Your task to perform on an android device: uninstall "Google Find My Device" Image 0: 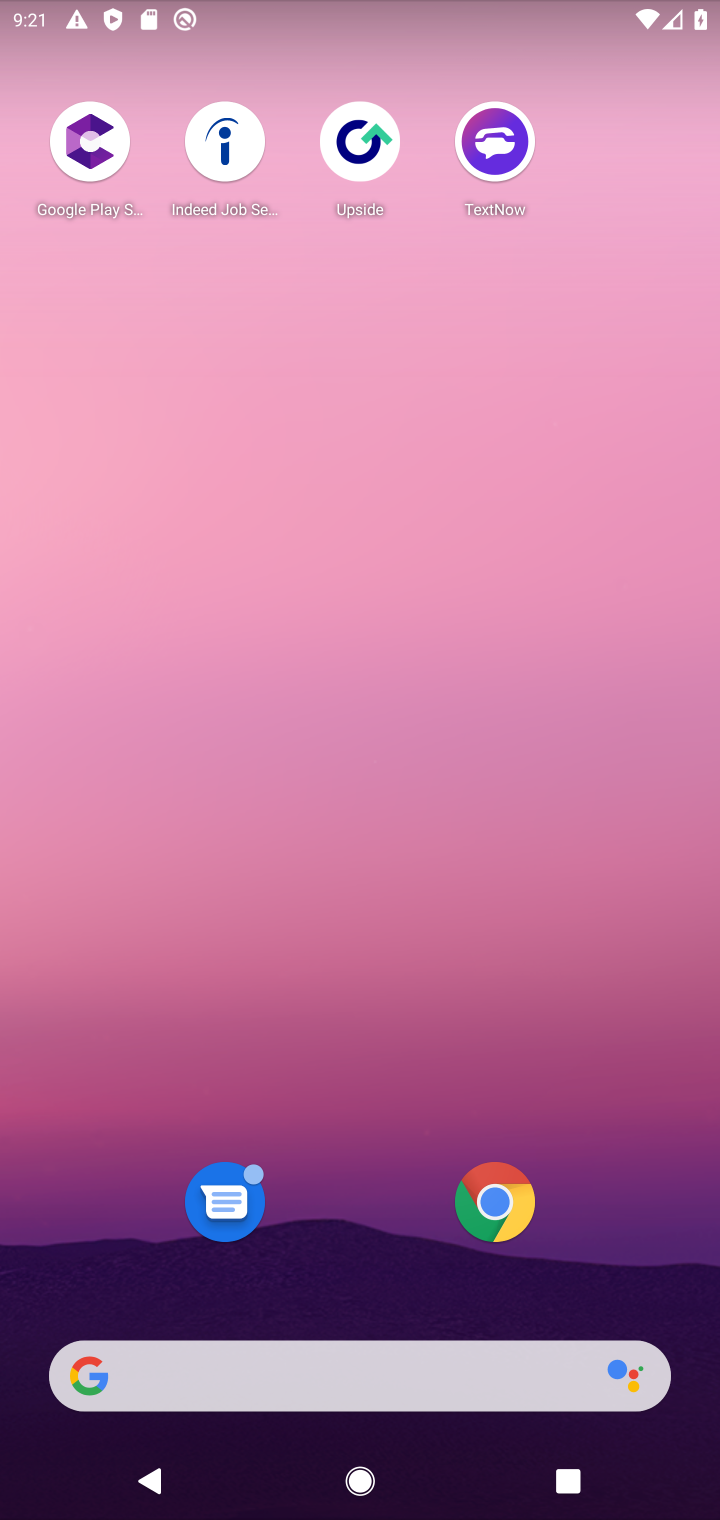
Step 0: click (336, 5)
Your task to perform on an android device: uninstall "Google Find My Device" Image 1: 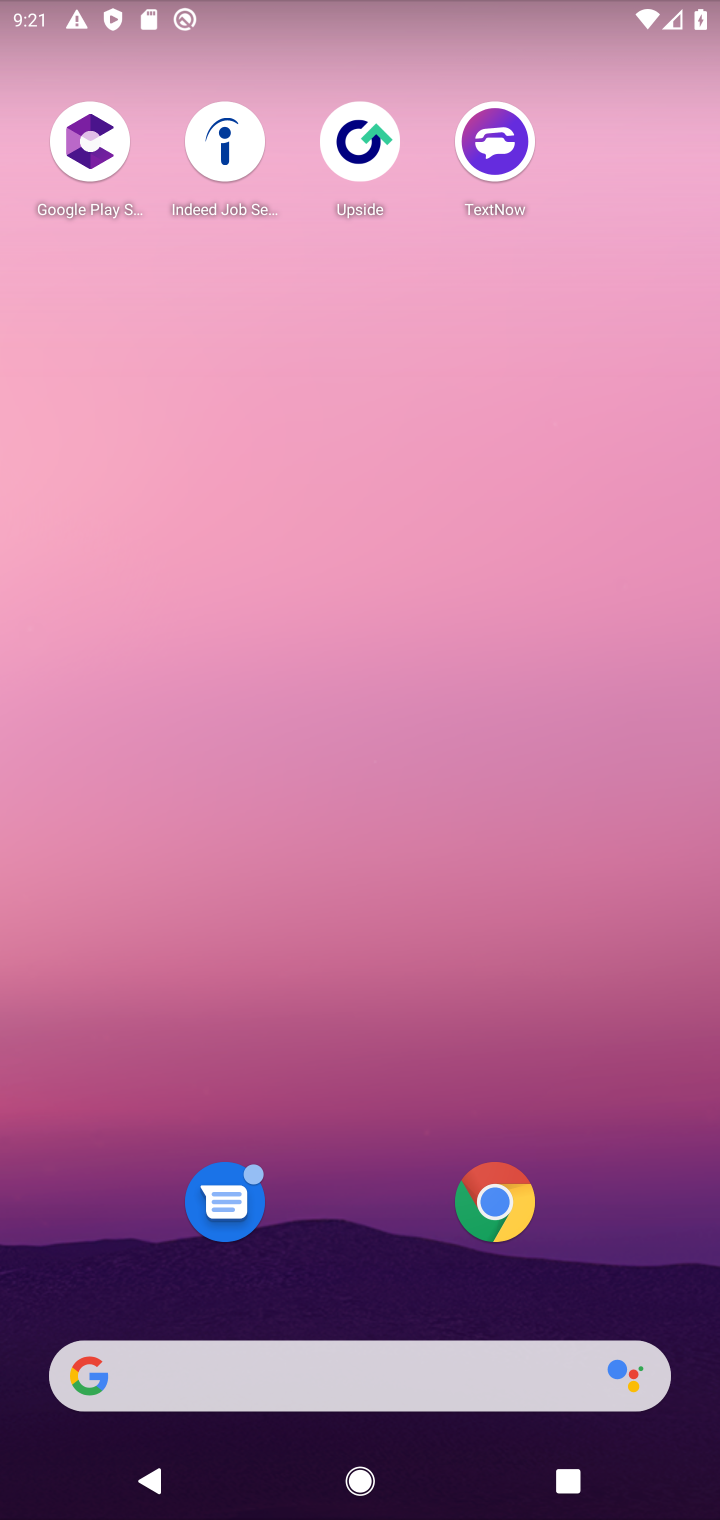
Step 1: drag from (473, 1382) to (449, 93)
Your task to perform on an android device: uninstall "Google Find My Device" Image 2: 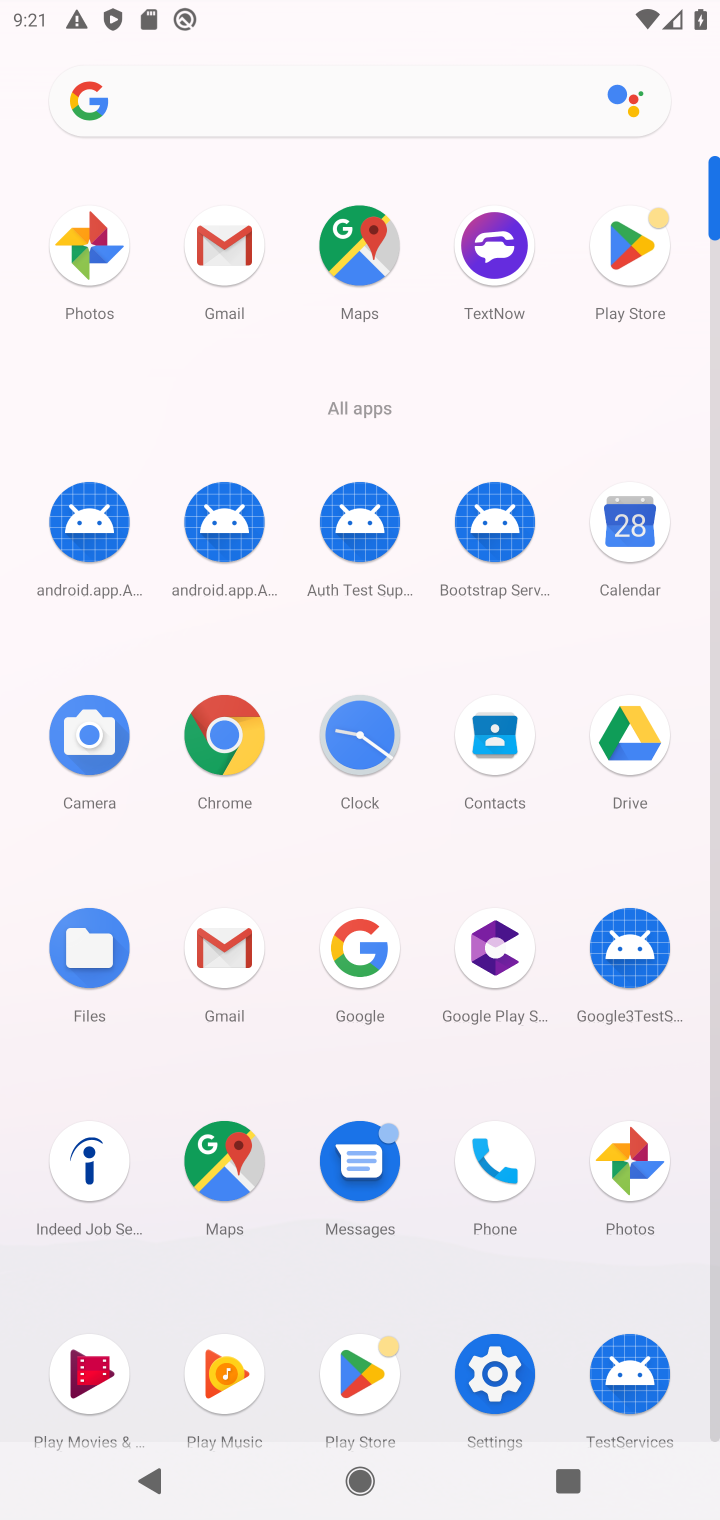
Step 2: click (612, 275)
Your task to perform on an android device: uninstall "Google Find My Device" Image 3: 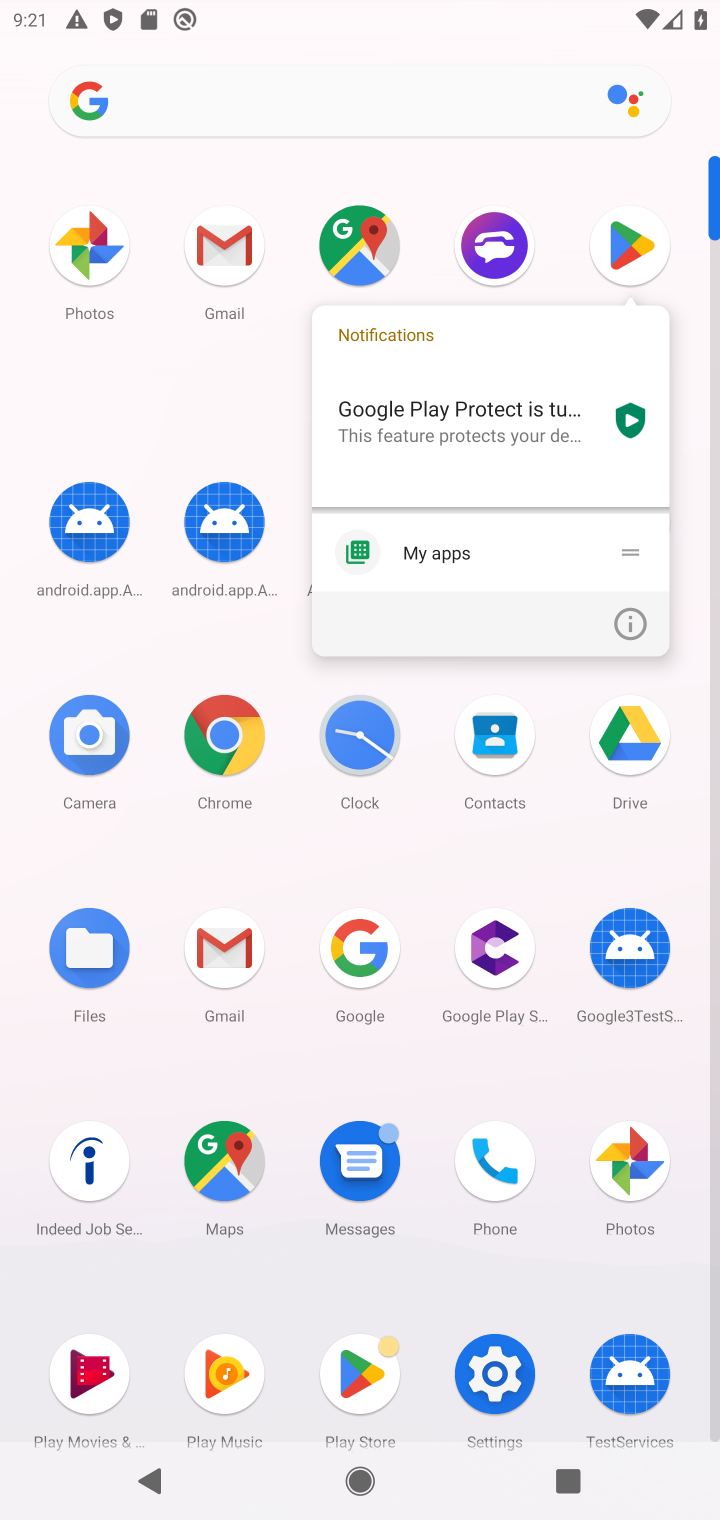
Step 3: click (612, 273)
Your task to perform on an android device: uninstall "Google Find My Device" Image 4: 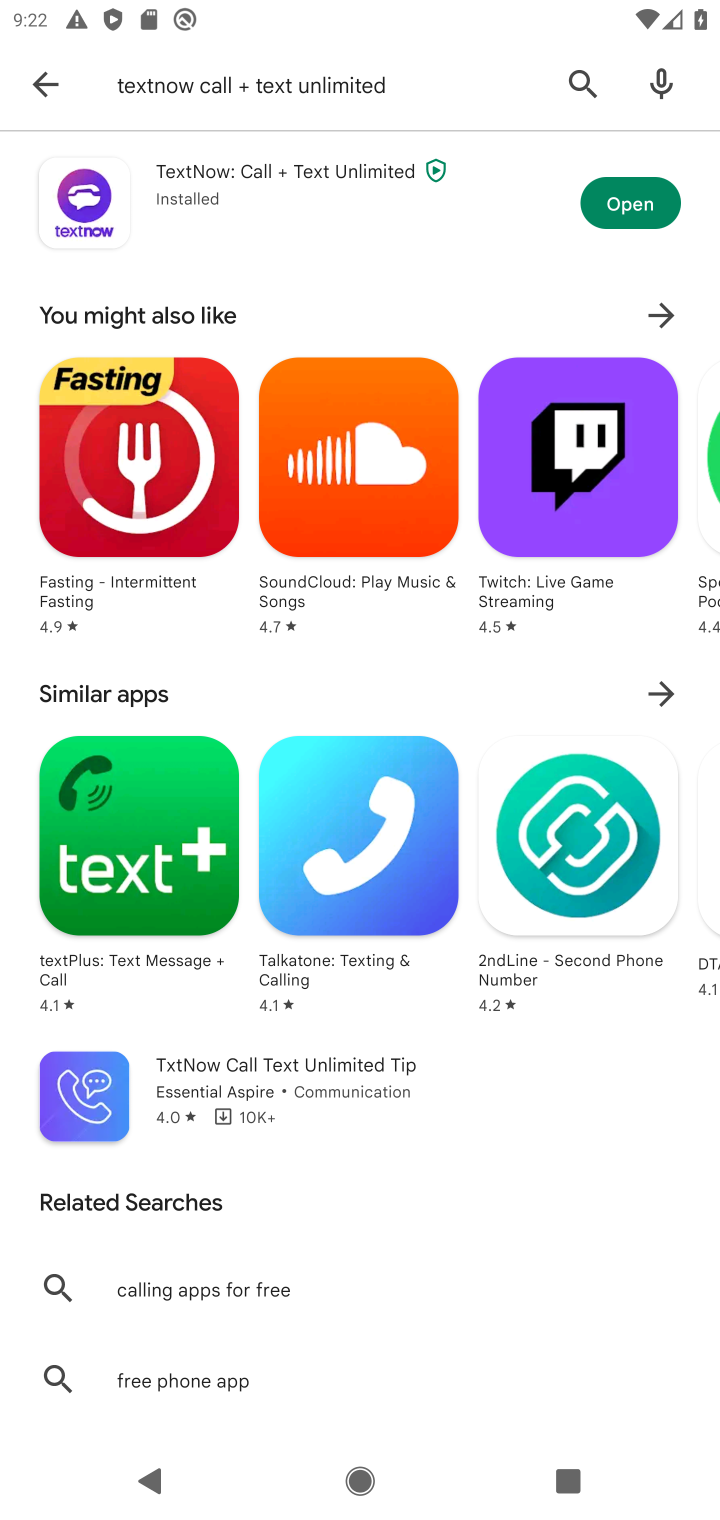
Step 4: click (576, 67)
Your task to perform on an android device: uninstall "Google Find My Device" Image 5: 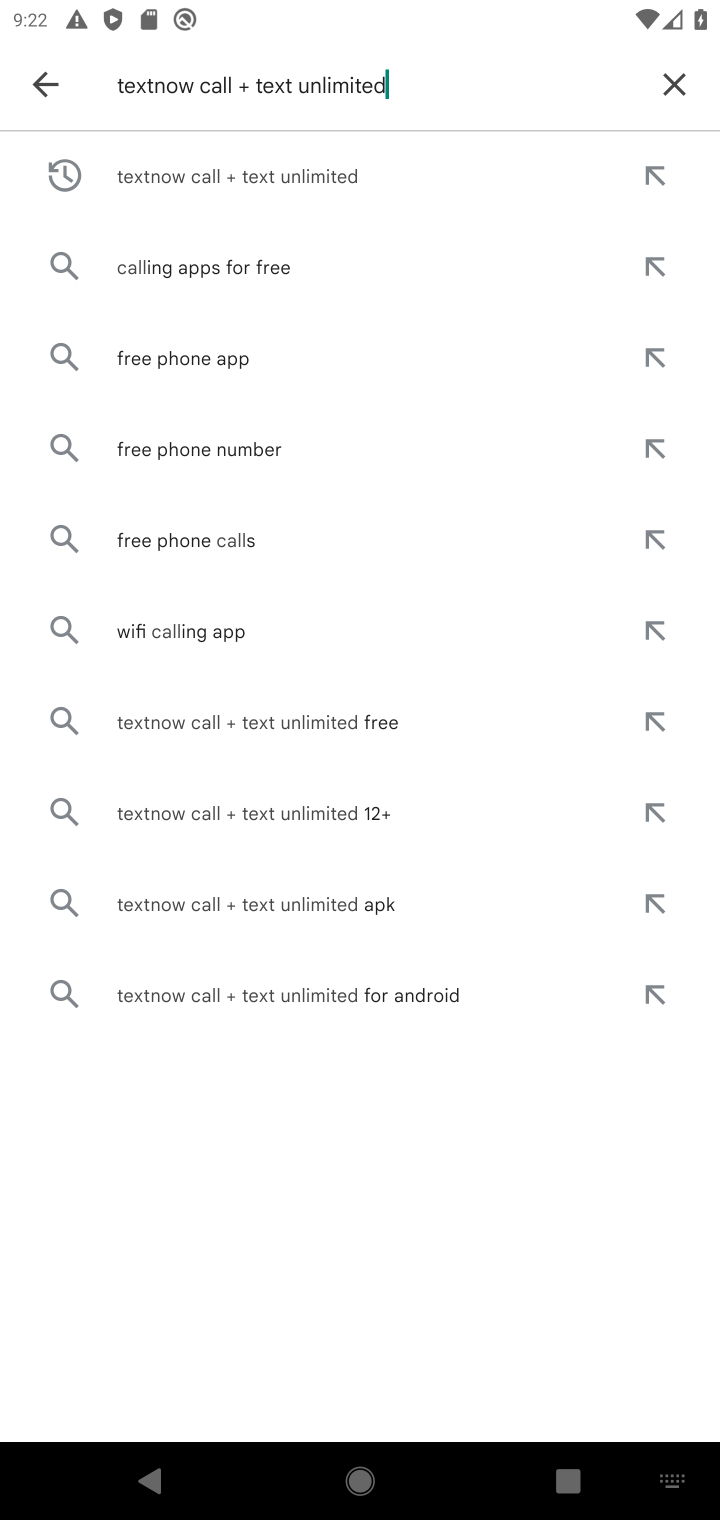
Step 5: type "google find my device"
Your task to perform on an android device: uninstall "Google Find My Device" Image 6: 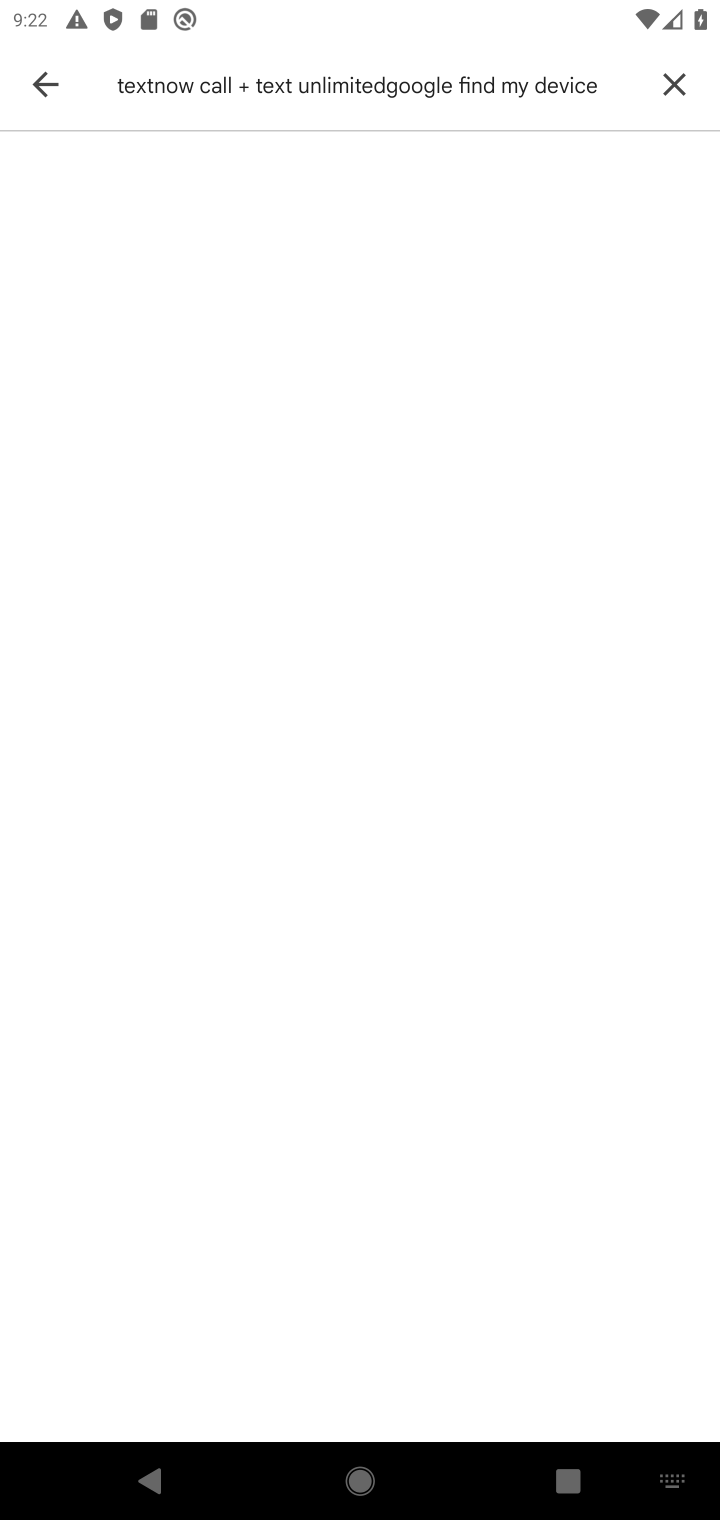
Step 6: click (689, 83)
Your task to perform on an android device: uninstall "Google Find My Device" Image 7: 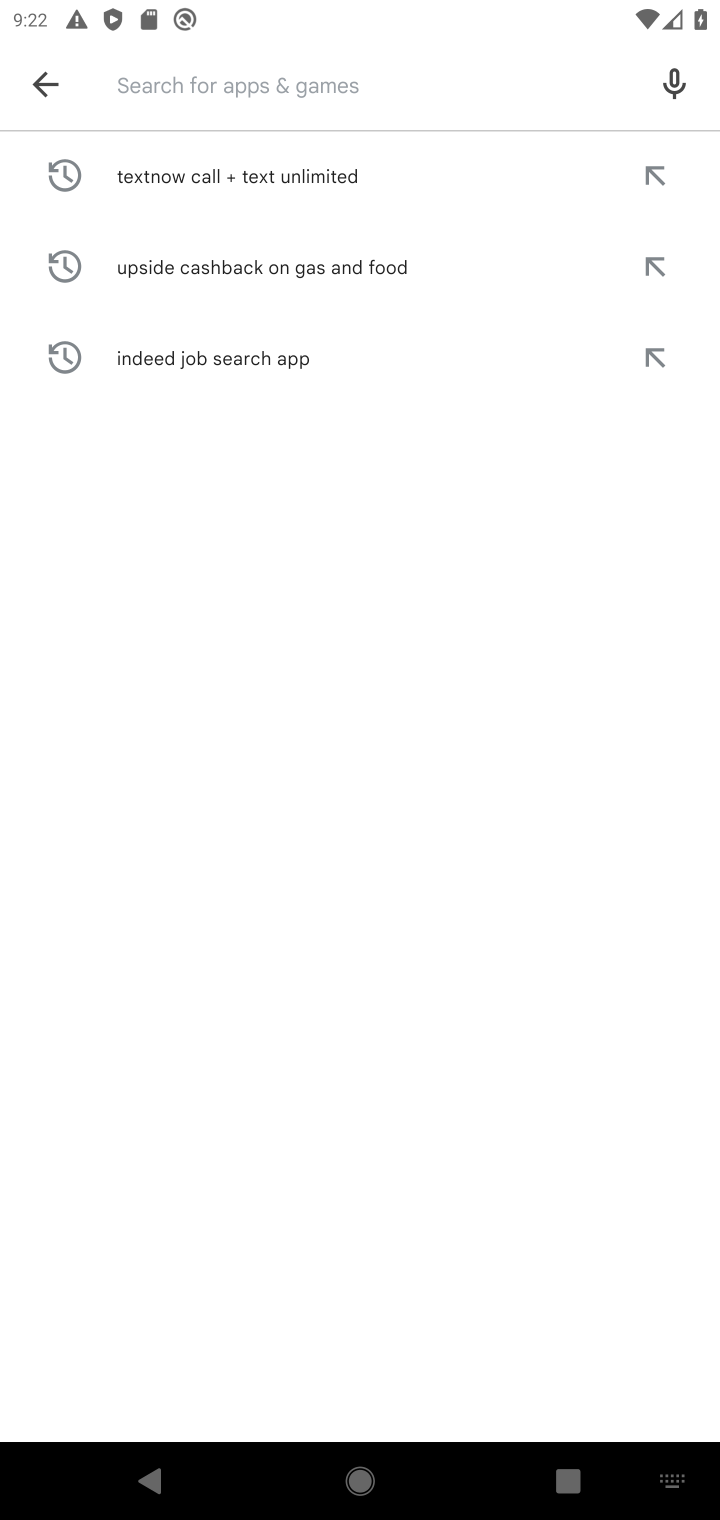
Step 7: type "google find my device"
Your task to perform on an android device: uninstall "Google Find My Device" Image 8: 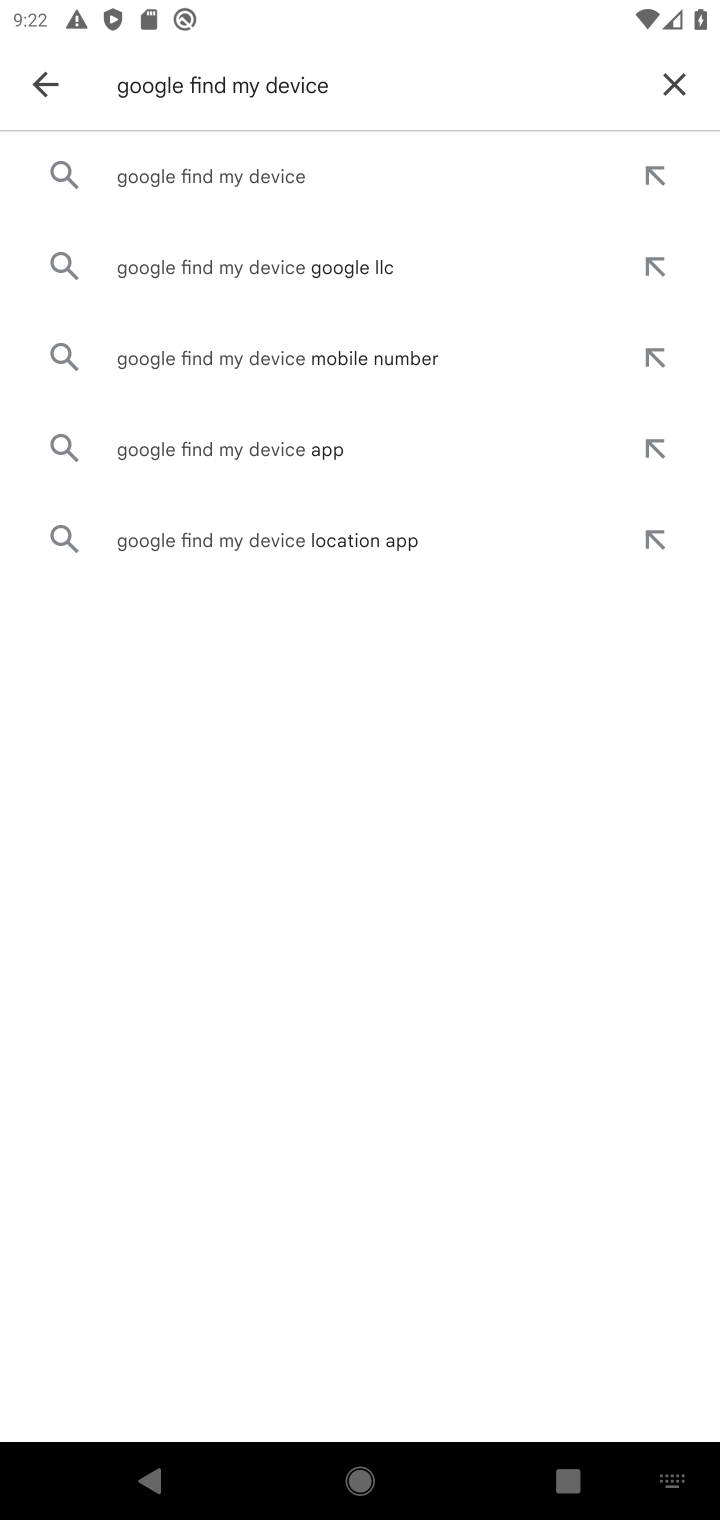
Step 8: click (195, 181)
Your task to perform on an android device: uninstall "Google Find My Device" Image 9: 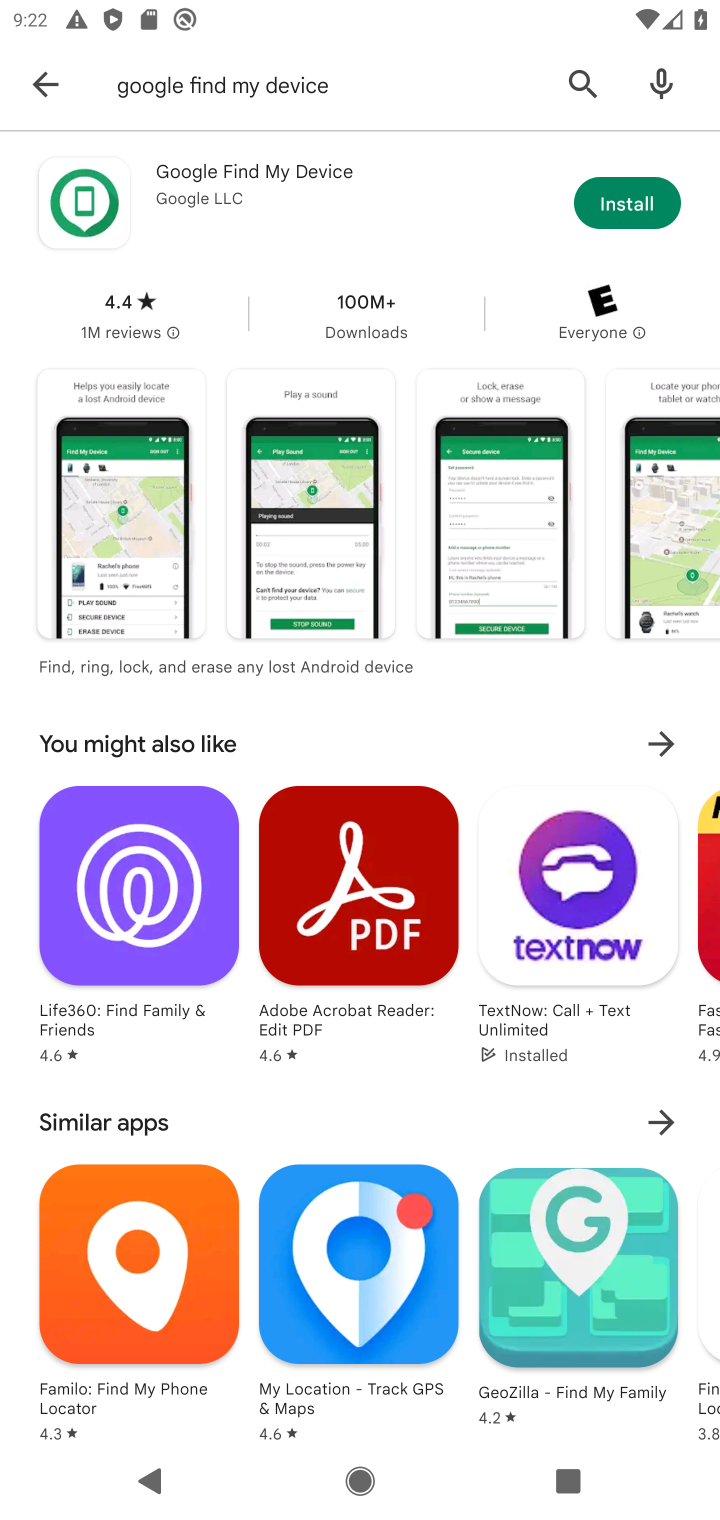
Step 9: task complete